Your task to perform on an android device: open a bookmark in the chrome app Image 0: 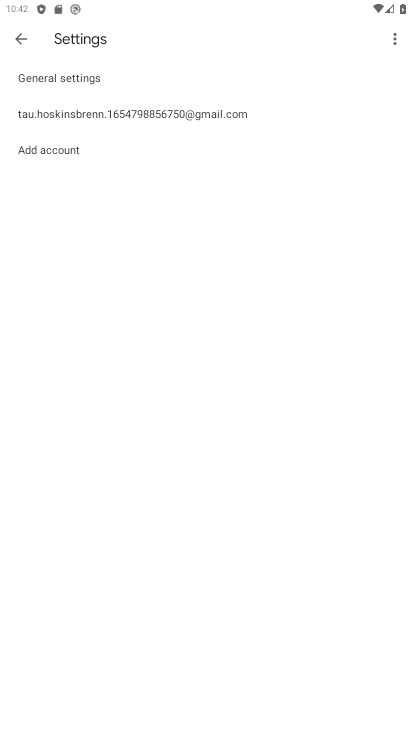
Step 0: press home button
Your task to perform on an android device: open a bookmark in the chrome app Image 1: 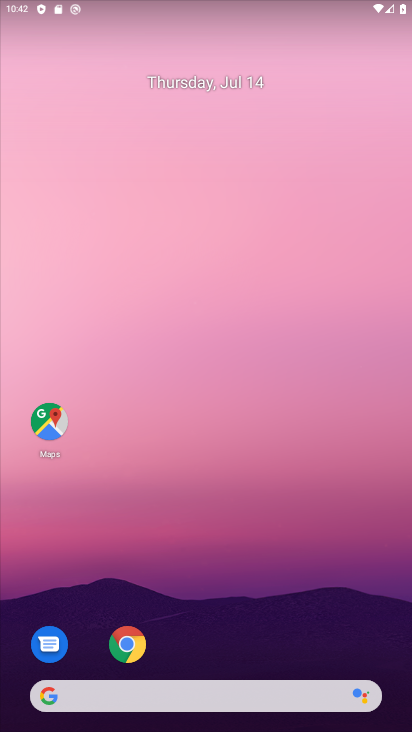
Step 1: click (134, 640)
Your task to perform on an android device: open a bookmark in the chrome app Image 2: 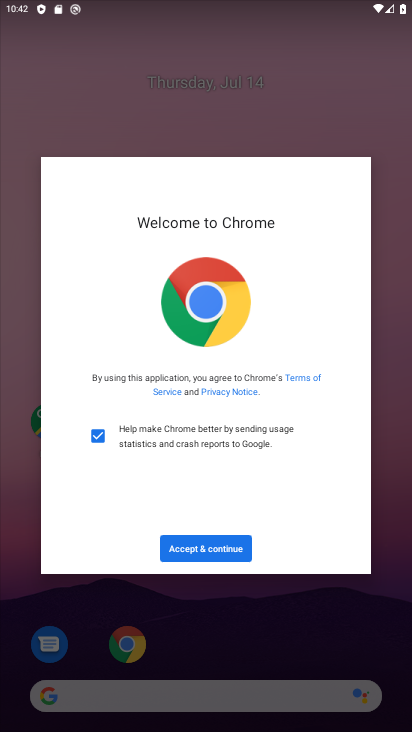
Step 2: click (251, 539)
Your task to perform on an android device: open a bookmark in the chrome app Image 3: 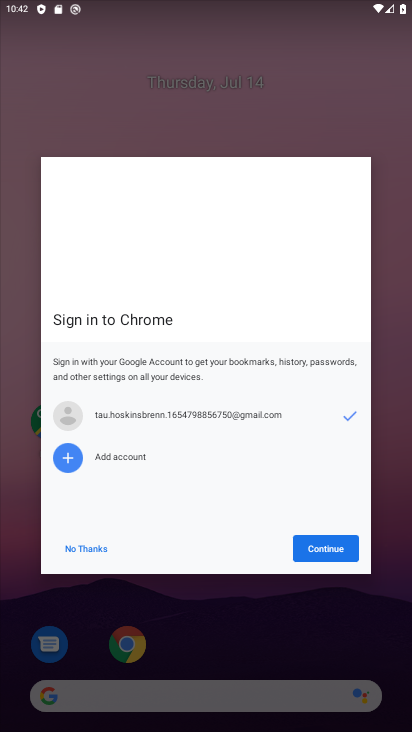
Step 3: click (331, 551)
Your task to perform on an android device: open a bookmark in the chrome app Image 4: 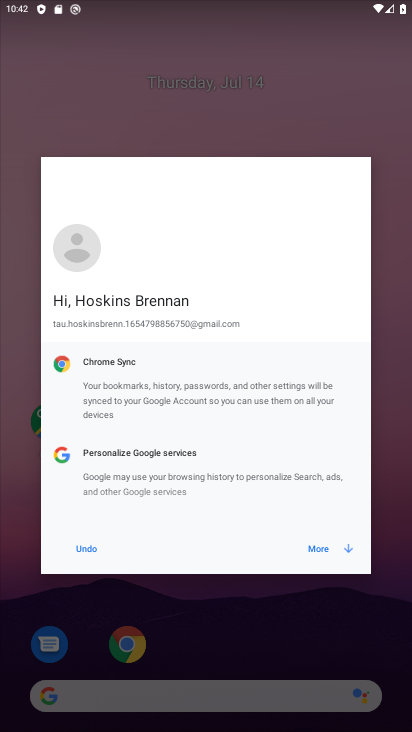
Step 4: click (332, 551)
Your task to perform on an android device: open a bookmark in the chrome app Image 5: 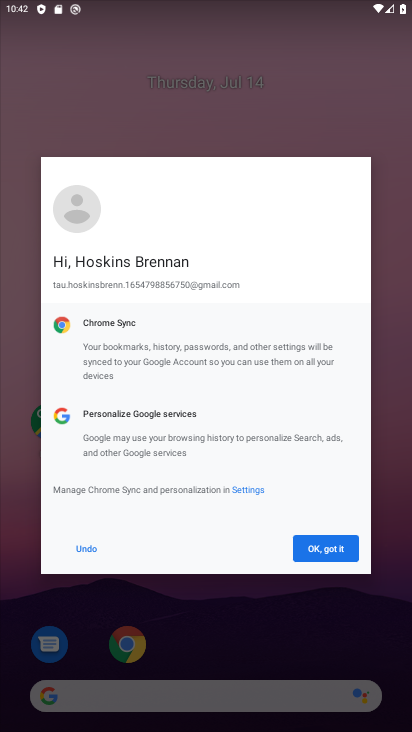
Step 5: click (332, 551)
Your task to perform on an android device: open a bookmark in the chrome app Image 6: 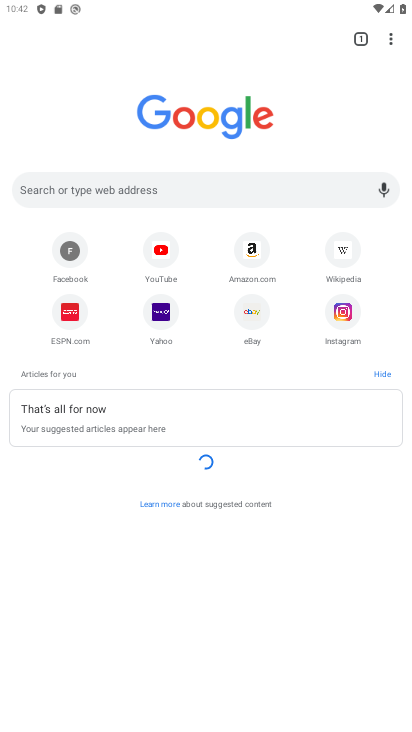
Step 6: drag from (391, 37) to (330, 154)
Your task to perform on an android device: open a bookmark in the chrome app Image 7: 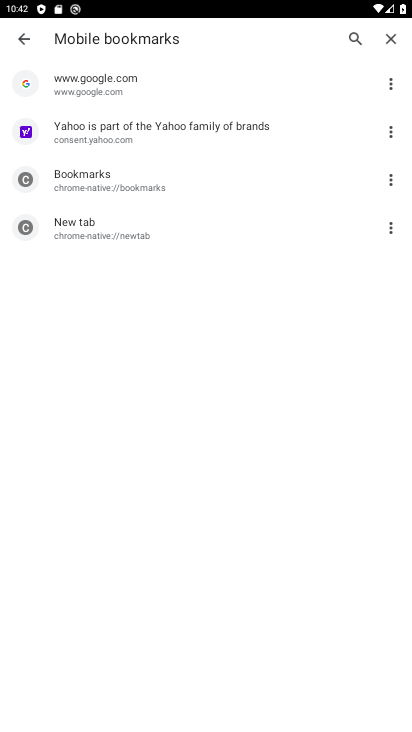
Step 7: click (161, 156)
Your task to perform on an android device: open a bookmark in the chrome app Image 8: 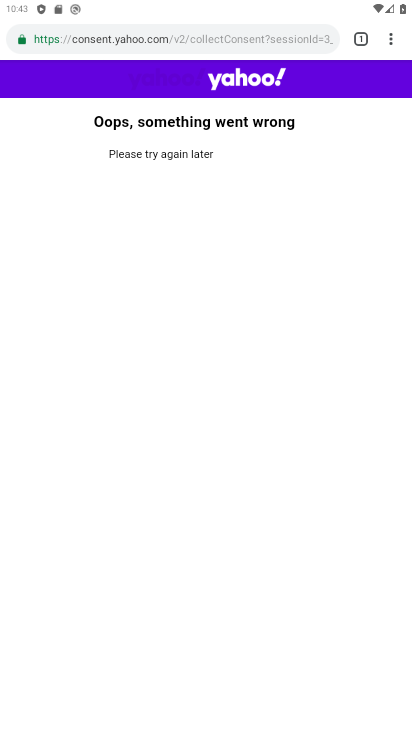
Step 8: task complete